Your task to perform on an android device: Go to ESPN.com Image 0: 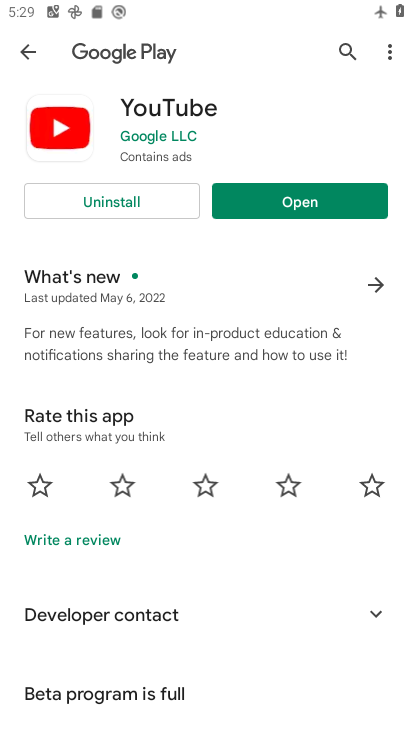
Step 0: press home button
Your task to perform on an android device: Go to ESPN.com Image 1: 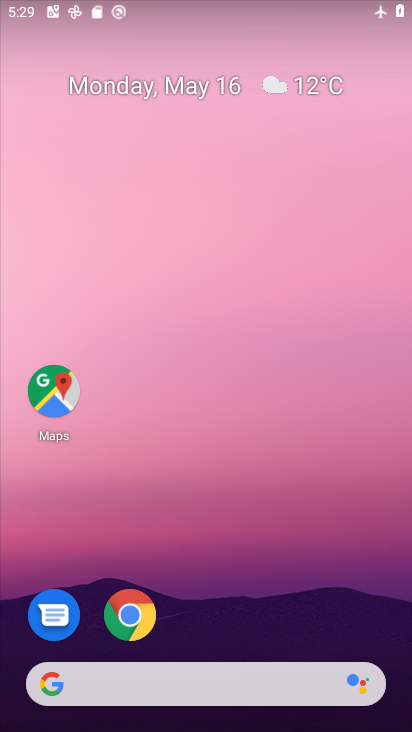
Step 1: drag from (210, 628) to (237, 87)
Your task to perform on an android device: Go to ESPN.com Image 2: 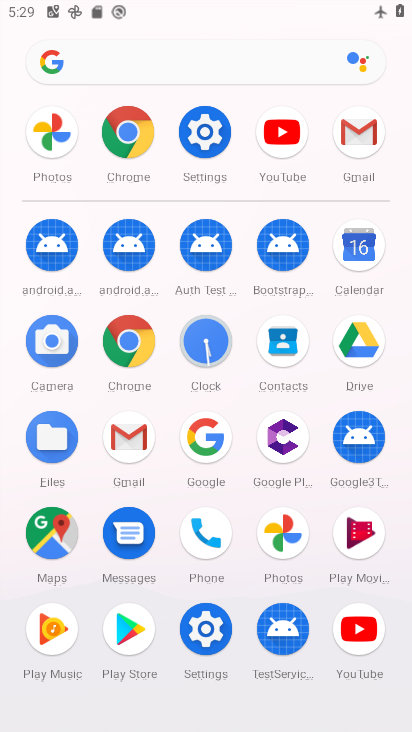
Step 2: click (132, 172)
Your task to perform on an android device: Go to ESPN.com Image 3: 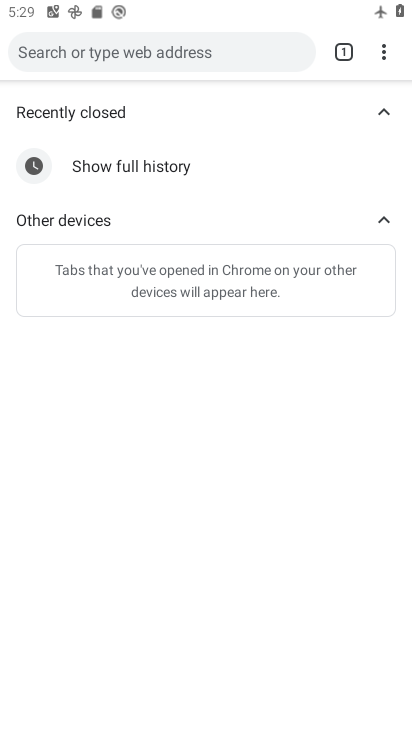
Step 3: press back button
Your task to perform on an android device: Go to ESPN.com Image 4: 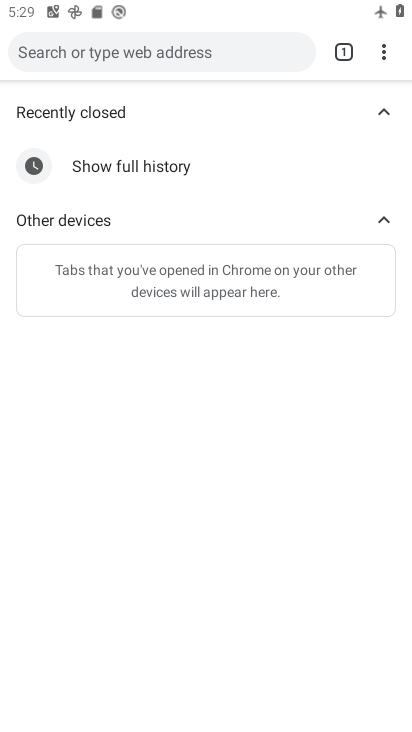
Step 4: press back button
Your task to perform on an android device: Go to ESPN.com Image 5: 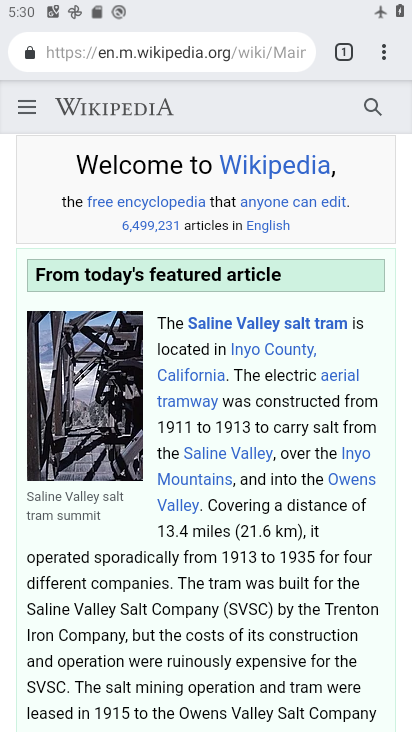
Step 5: press back button
Your task to perform on an android device: Go to ESPN.com Image 6: 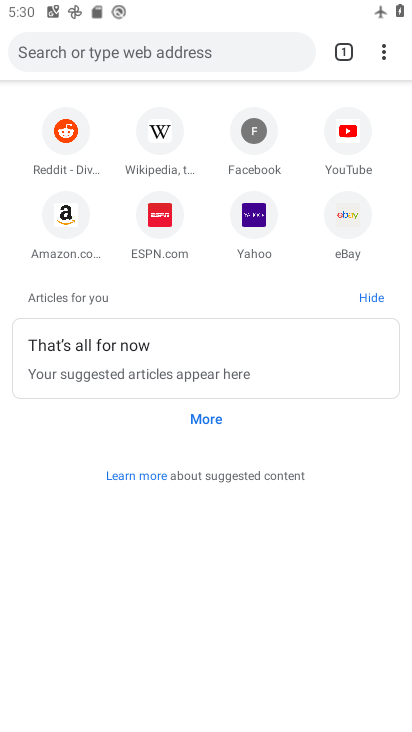
Step 6: click (167, 229)
Your task to perform on an android device: Go to ESPN.com Image 7: 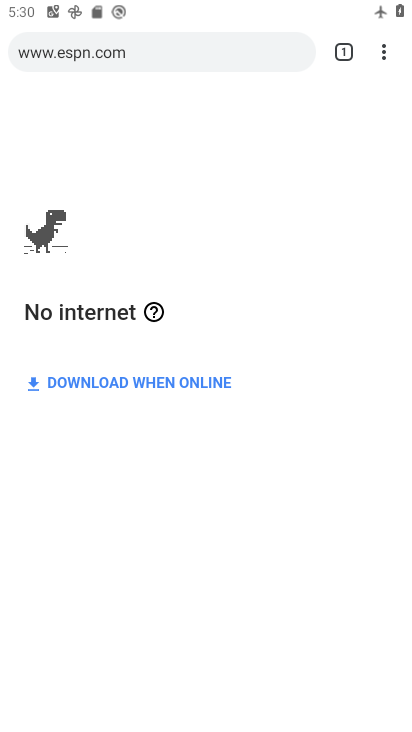
Step 7: task complete